Your task to perform on an android device: Search for "apple airpods" on ebay.com, select the first entry, and add it to the cart. Image 0: 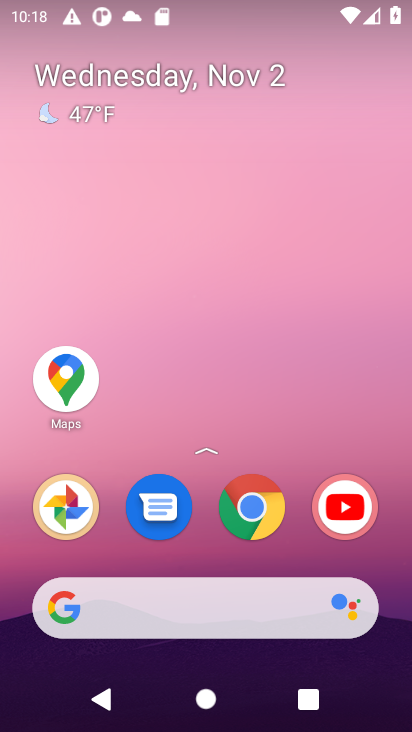
Step 0: click (201, 575)
Your task to perform on an android device: Search for "apple airpods" on ebay.com, select the first entry, and add it to the cart. Image 1: 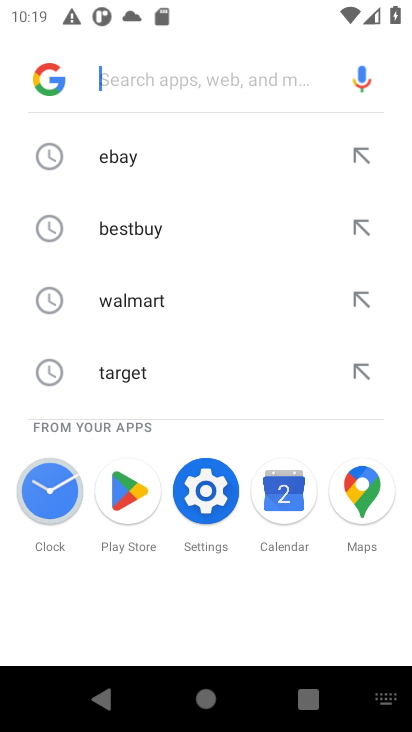
Step 1: click (117, 149)
Your task to perform on an android device: Search for "apple airpods" on ebay.com, select the first entry, and add it to the cart. Image 2: 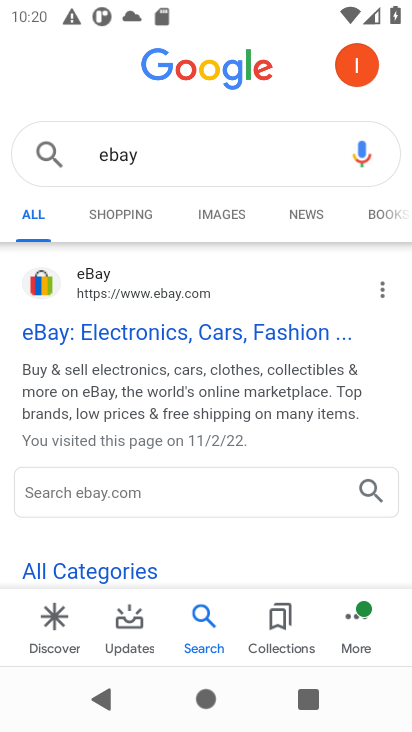
Step 2: click (131, 342)
Your task to perform on an android device: Search for "apple airpods" on ebay.com, select the first entry, and add it to the cart. Image 3: 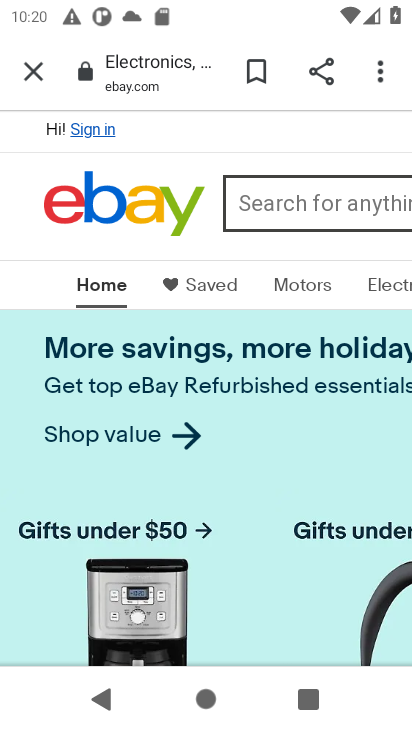
Step 3: click (250, 199)
Your task to perform on an android device: Search for "apple airpods" on ebay.com, select the first entry, and add it to the cart. Image 4: 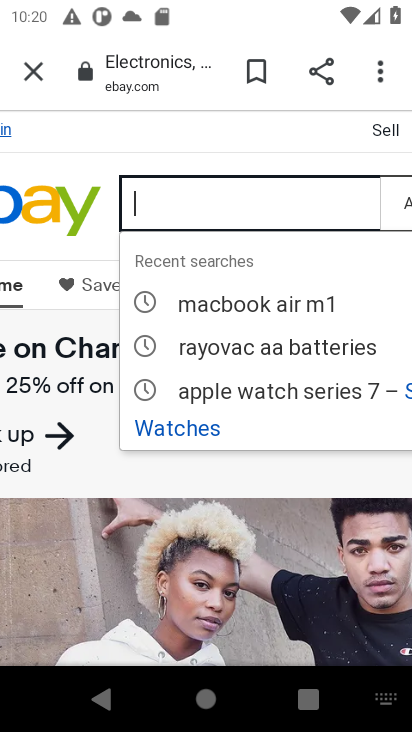
Step 4: type "apple airpod"
Your task to perform on an android device: Search for "apple airpods" on ebay.com, select the first entry, and add it to the cart. Image 5: 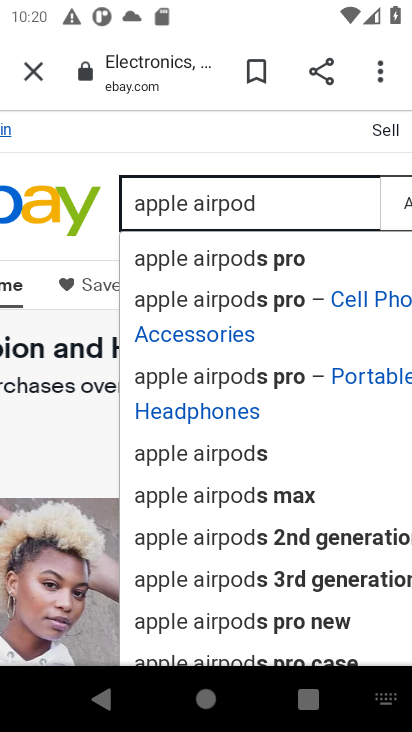
Step 5: click (201, 265)
Your task to perform on an android device: Search for "apple airpods" on ebay.com, select the first entry, and add it to the cart. Image 6: 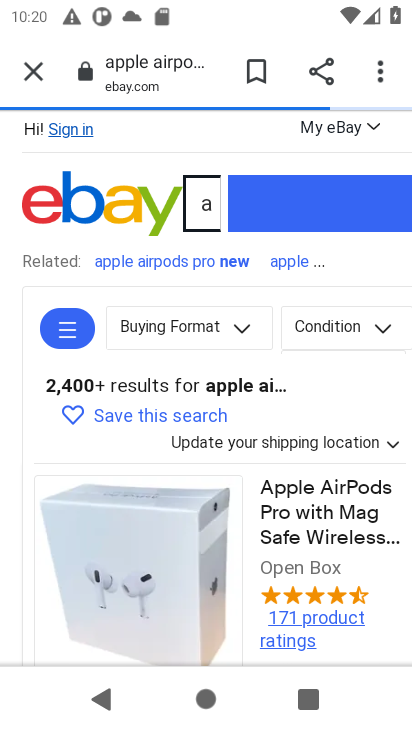
Step 6: click (155, 571)
Your task to perform on an android device: Search for "apple airpods" on ebay.com, select the first entry, and add it to the cart. Image 7: 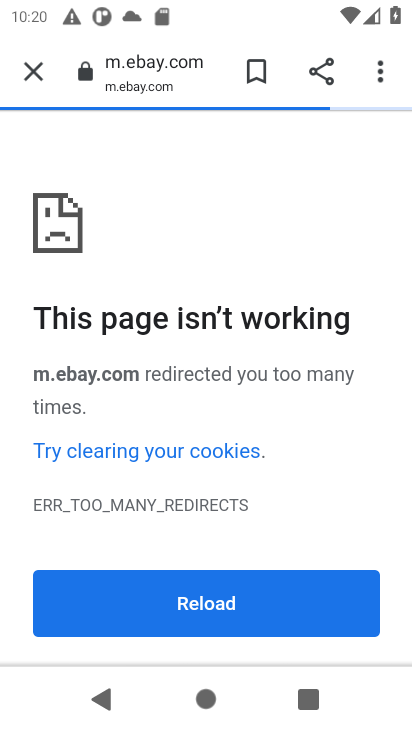
Step 7: task complete